Your task to perform on an android device: Go to Android settings Image 0: 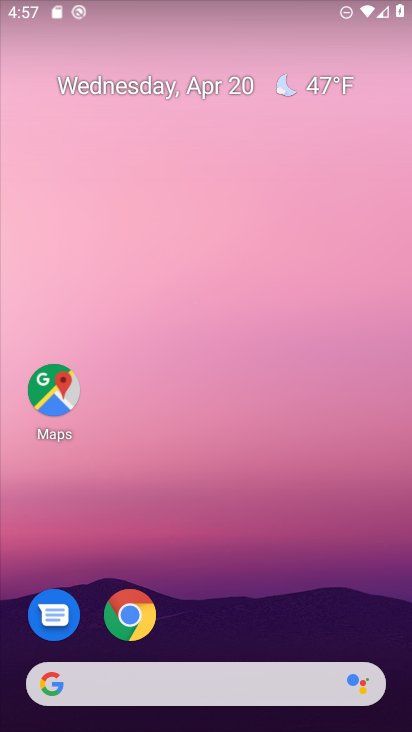
Step 0: drag from (281, 595) to (270, 15)
Your task to perform on an android device: Go to Android settings Image 1: 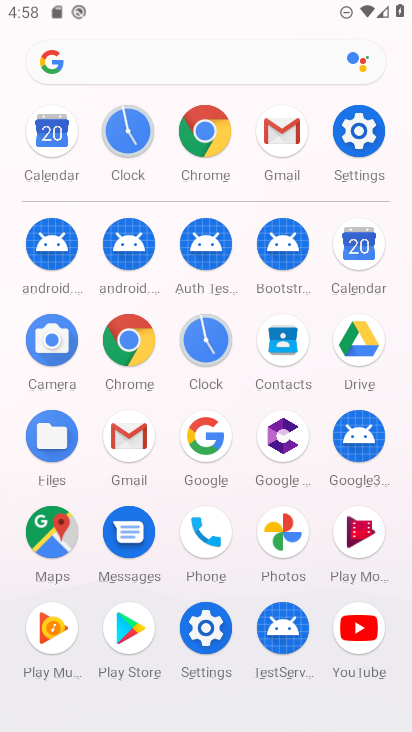
Step 1: click (366, 119)
Your task to perform on an android device: Go to Android settings Image 2: 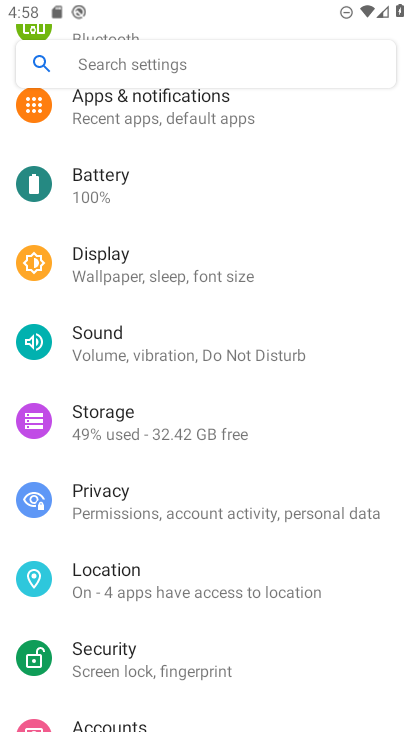
Step 2: drag from (249, 667) to (218, 64)
Your task to perform on an android device: Go to Android settings Image 3: 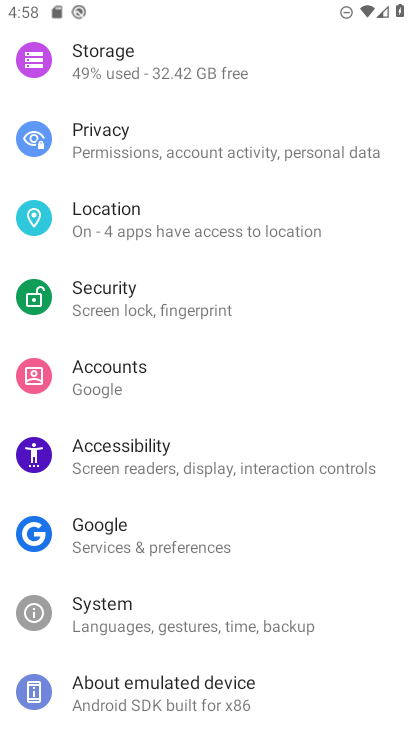
Step 3: click (207, 698)
Your task to perform on an android device: Go to Android settings Image 4: 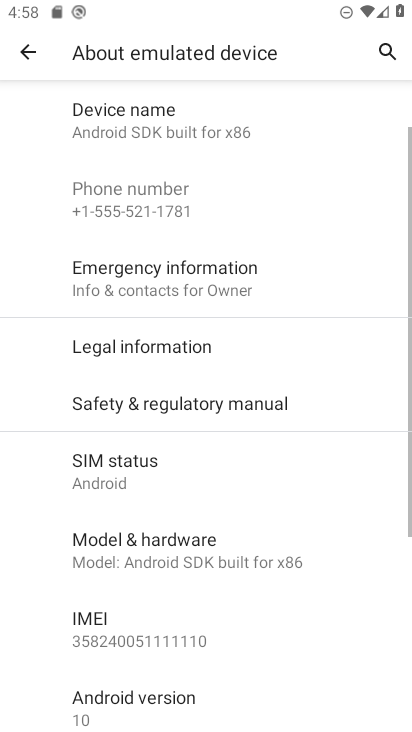
Step 4: drag from (223, 652) to (214, 191)
Your task to perform on an android device: Go to Android settings Image 5: 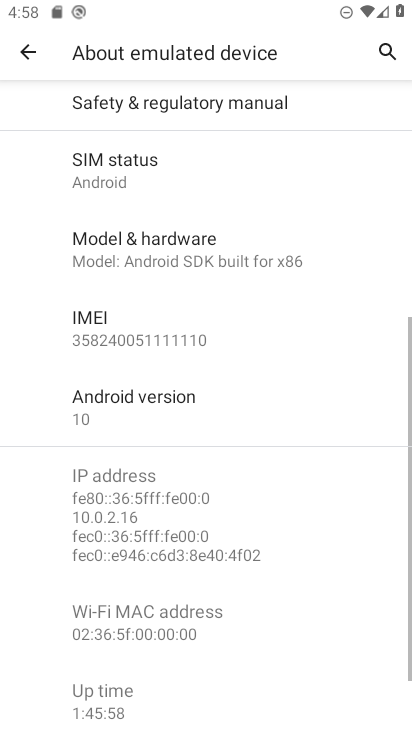
Step 5: drag from (259, 643) to (291, 157)
Your task to perform on an android device: Go to Android settings Image 6: 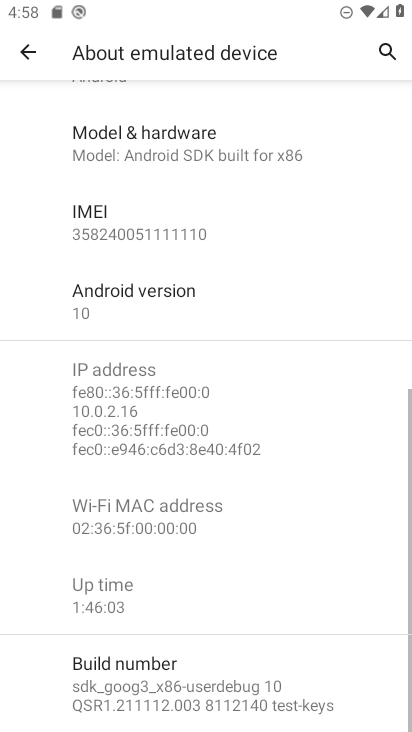
Step 6: click (173, 292)
Your task to perform on an android device: Go to Android settings Image 7: 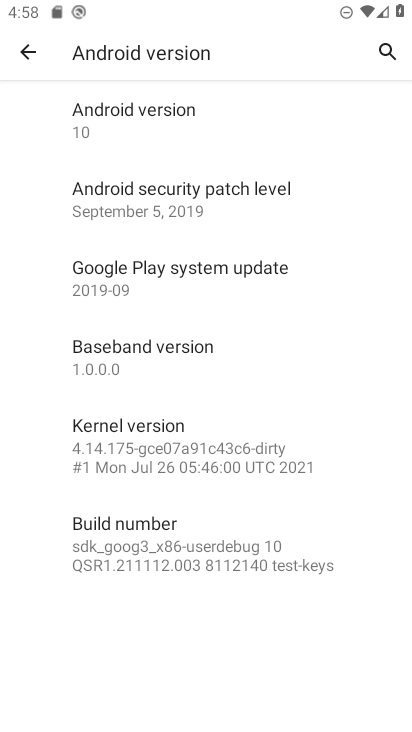
Step 7: task complete